Your task to perform on an android device: open chrome and create a bookmark for the current page Image 0: 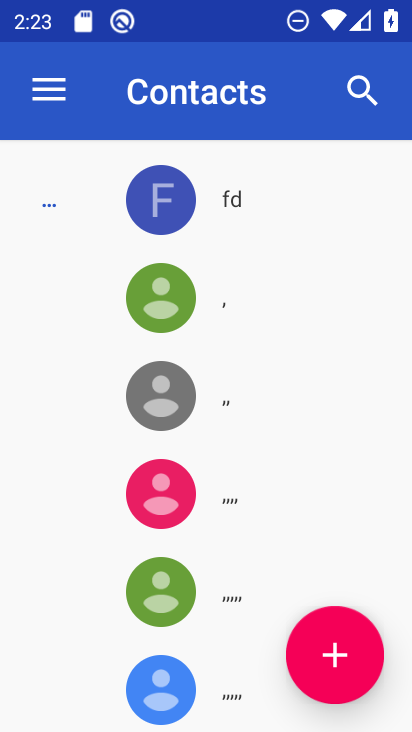
Step 0: press home button
Your task to perform on an android device: open chrome and create a bookmark for the current page Image 1: 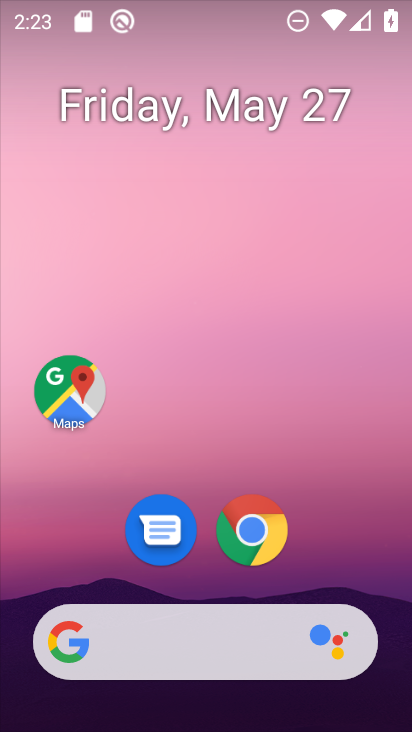
Step 1: click (271, 543)
Your task to perform on an android device: open chrome and create a bookmark for the current page Image 2: 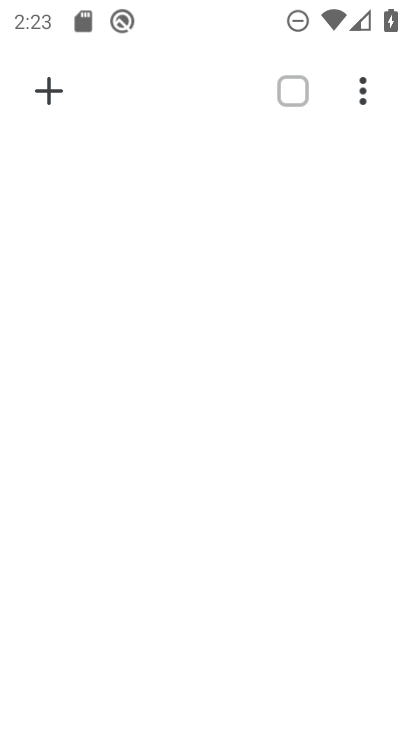
Step 2: click (57, 94)
Your task to perform on an android device: open chrome and create a bookmark for the current page Image 3: 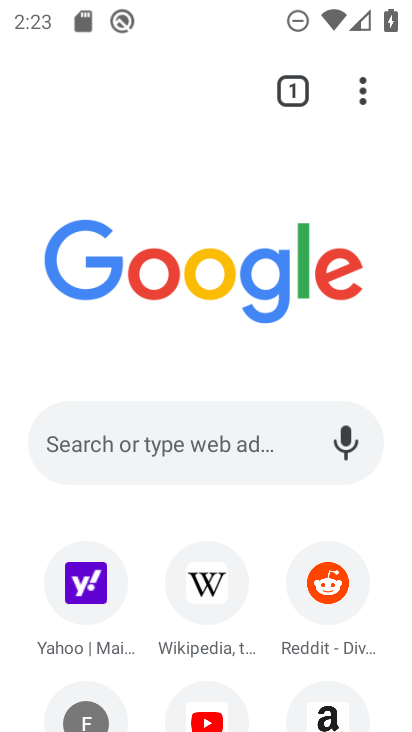
Step 3: click (363, 97)
Your task to perform on an android device: open chrome and create a bookmark for the current page Image 4: 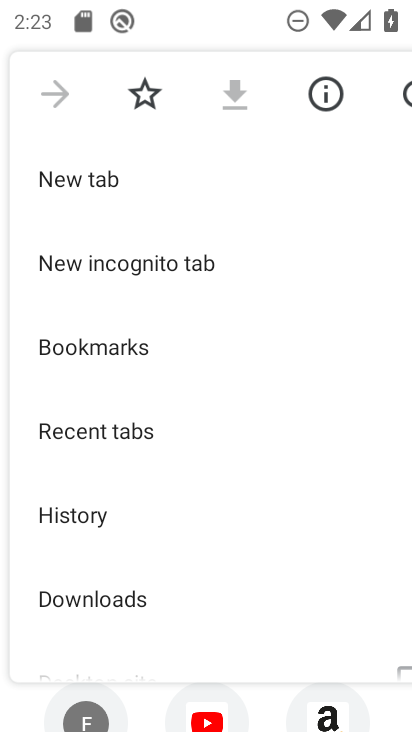
Step 4: click (149, 101)
Your task to perform on an android device: open chrome and create a bookmark for the current page Image 5: 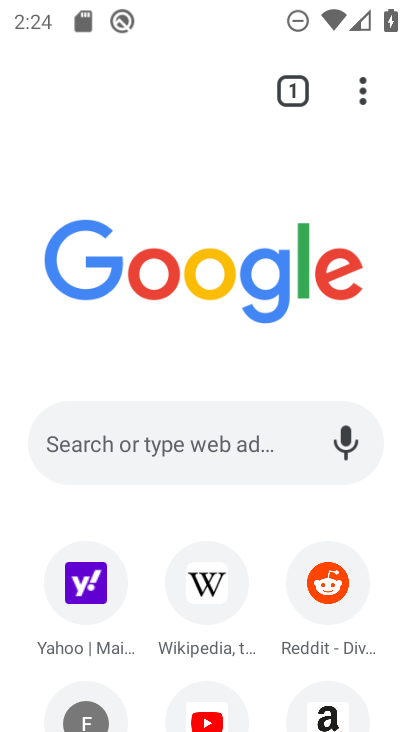
Step 5: click (355, 98)
Your task to perform on an android device: open chrome and create a bookmark for the current page Image 6: 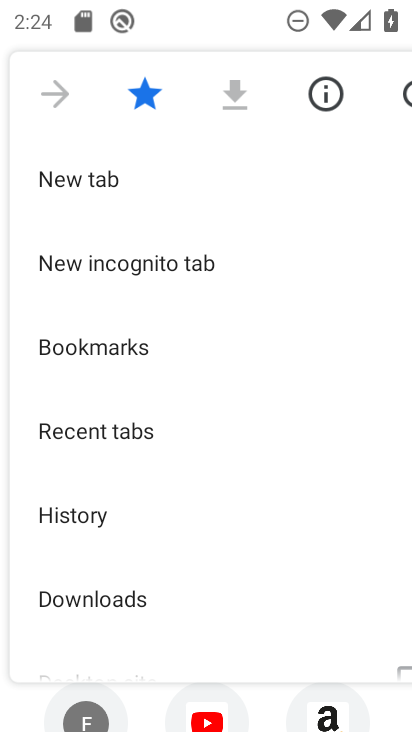
Step 6: task complete